Your task to perform on an android device: change alarm snooze length Image 0: 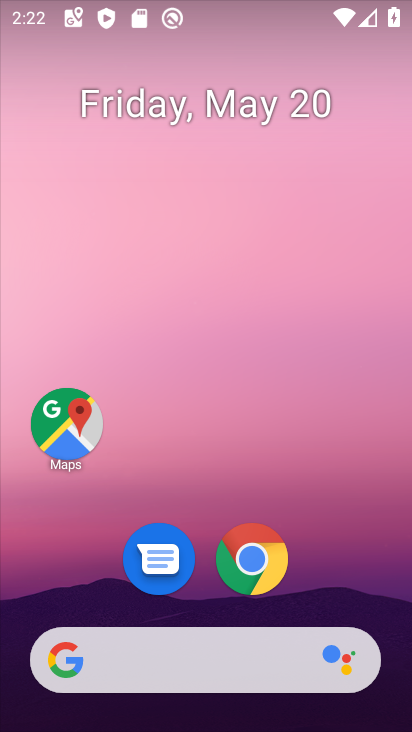
Step 0: drag from (258, 446) to (225, 40)
Your task to perform on an android device: change alarm snooze length Image 1: 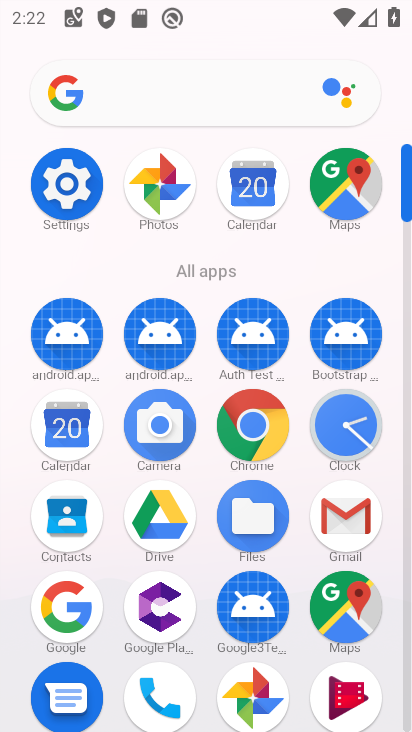
Step 1: click (355, 419)
Your task to perform on an android device: change alarm snooze length Image 2: 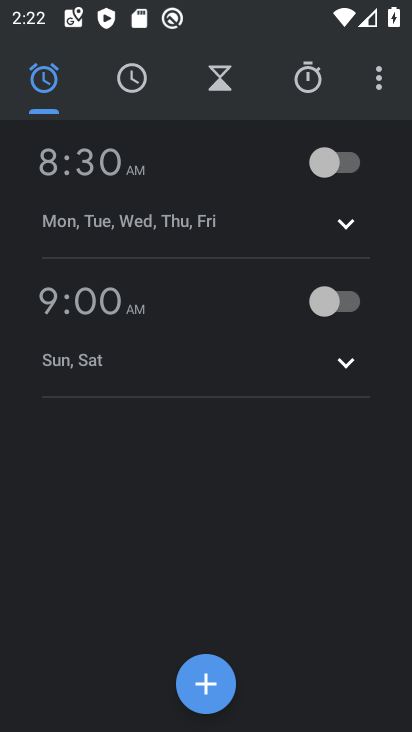
Step 2: click (382, 86)
Your task to perform on an android device: change alarm snooze length Image 3: 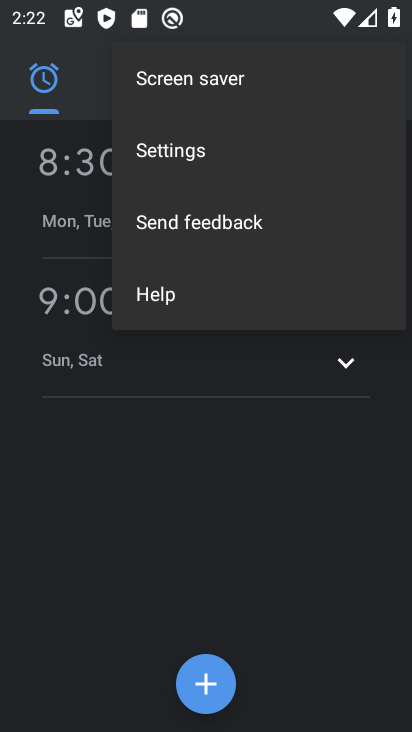
Step 3: click (261, 156)
Your task to perform on an android device: change alarm snooze length Image 4: 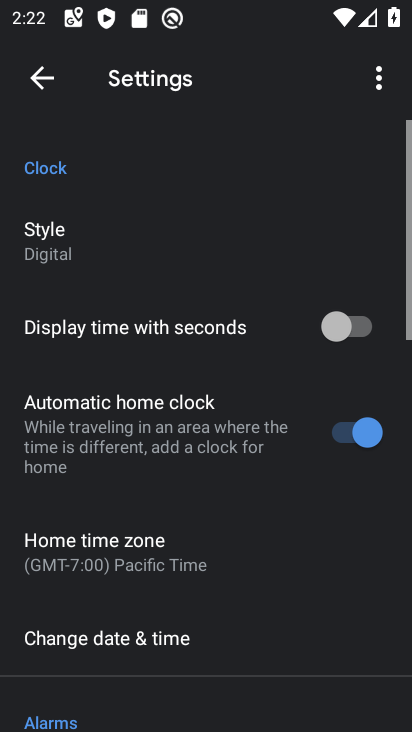
Step 4: drag from (233, 489) to (203, 173)
Your task to perform on an android device: change alarm snooze length Image 5: 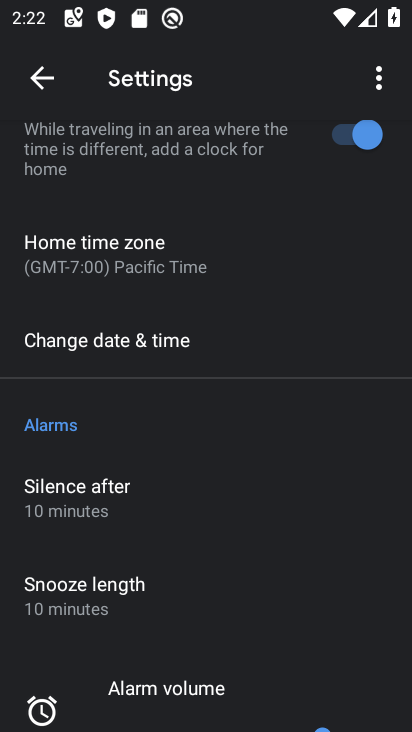
Step 5: click (90, 590)
Your task to perform on an android device: change alarm snooze length Image 6: 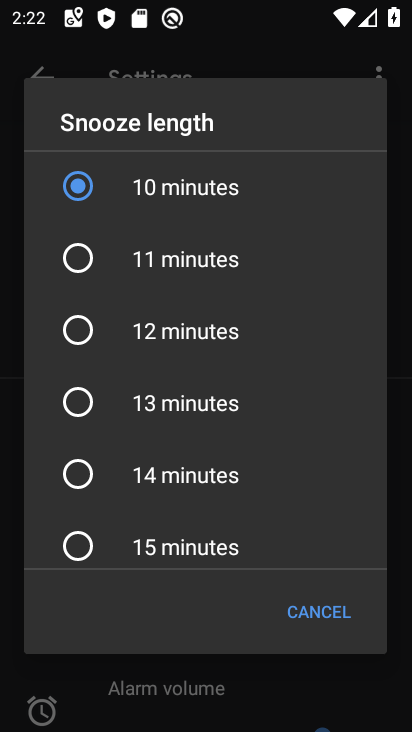
Step 6: click (90, 335)
Your task to perform on an android device: change alarm snooze length Image 7: 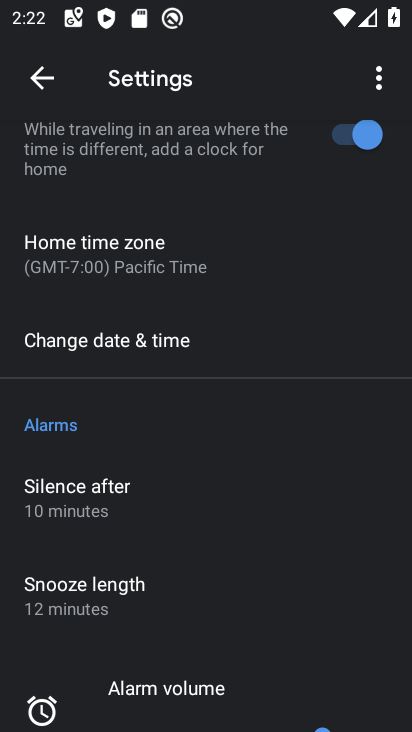
Step 7: task complete